Your task to perform on an android device: star an email in the gmail app Image 0: 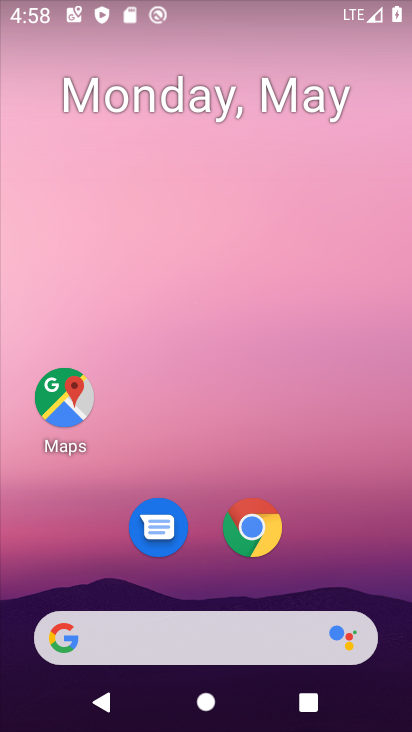
Step 0: drag from (397, 663) to (310, 26)
Your task to perform on an android device: star an email in the gmail app Image 1: 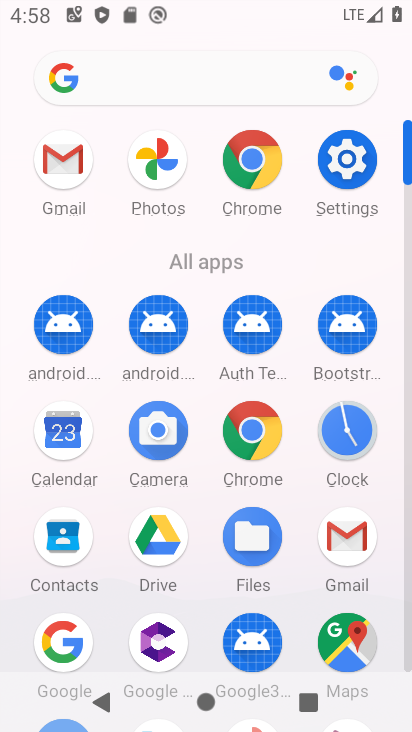
Step 1: click (343, 529)
Your task to perform on an android device: star an email in the gmail app Image 2: 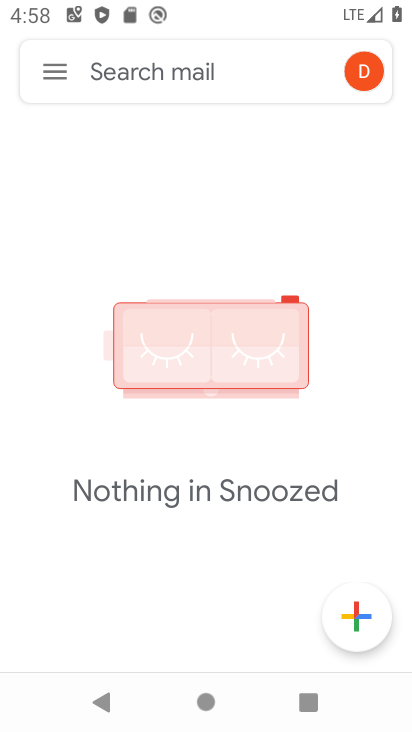
Step 2: click (57, 65)
Your task to perform on an android device: star an email in the gmail app Image 3: 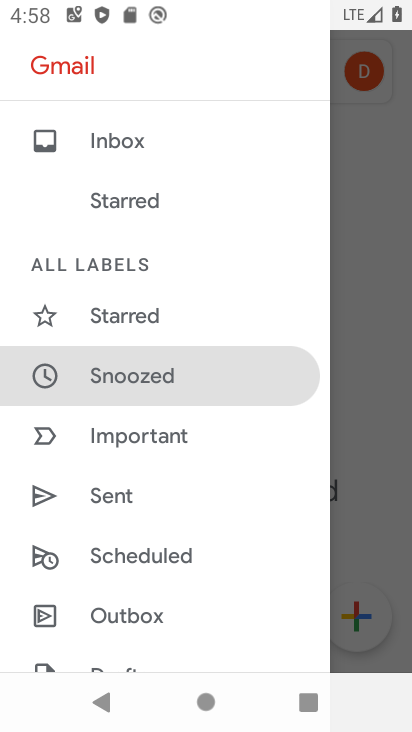
Step 3: click (103, 149)
Your task to perform on an android device: star an email in the gmail app Image 4: 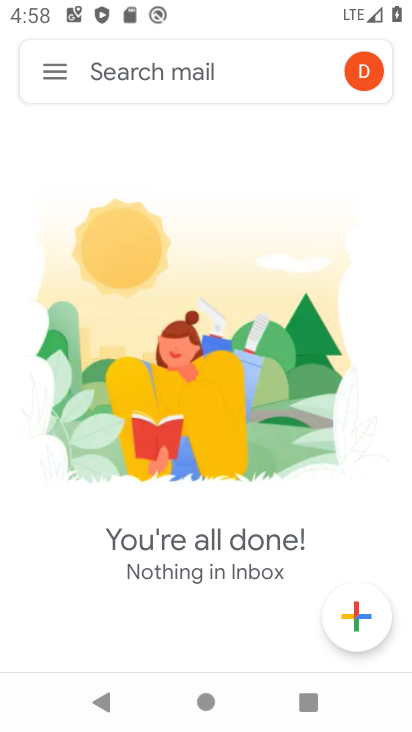
Step 4: task complete